Your task to perform on an android device: When is my next appointment? Image 0: 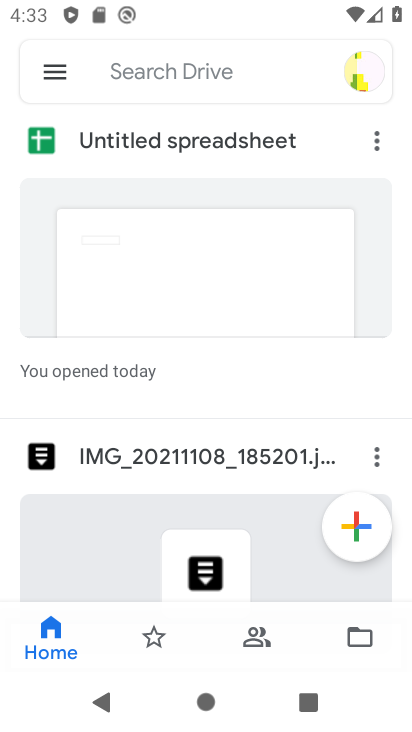
Step 0: press back button
Your task to perform on an android device: When is my next appointment? Image 1: 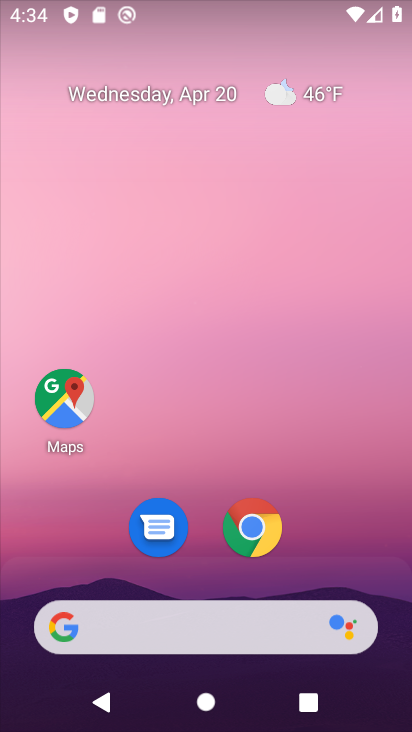
Step 1: drag from (202, 602) to (248, 179)
Your task to perform on an android device: When is my next appointment? Image 2: 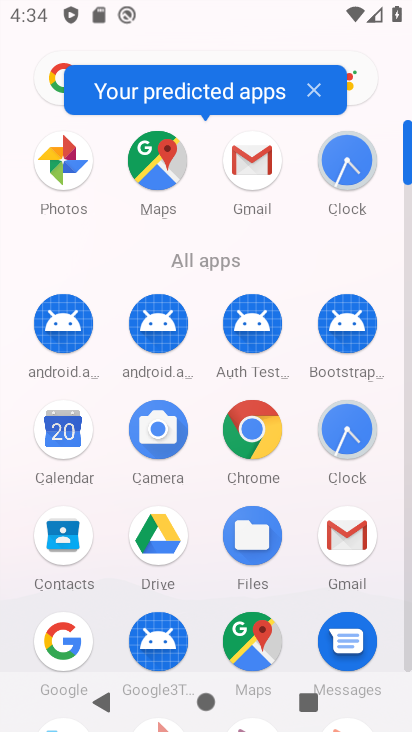
Step 2: click (62, 437)
Your task to perform on an android device: When is my next appointment? Image 3: 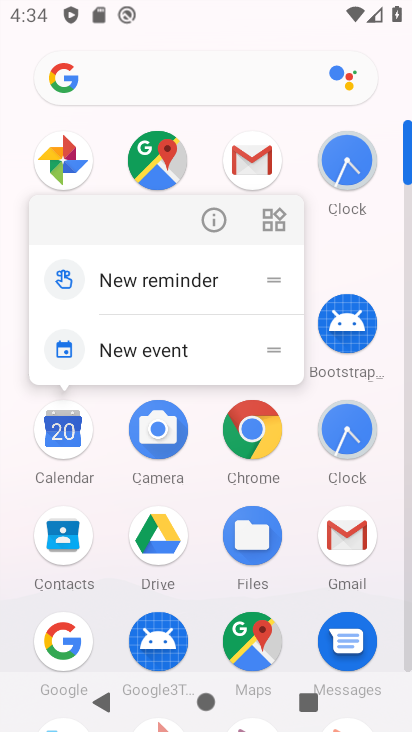
Step 3: click (202, 222)
Your task to perform on an android device: When is my next appointment? Image 4: 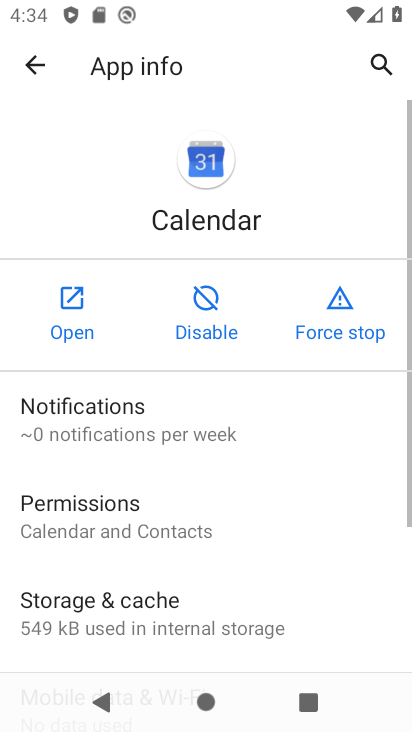
Step 4: click (67, 306)
Your task to perform on an android device: When is my next appointment? Image 5: 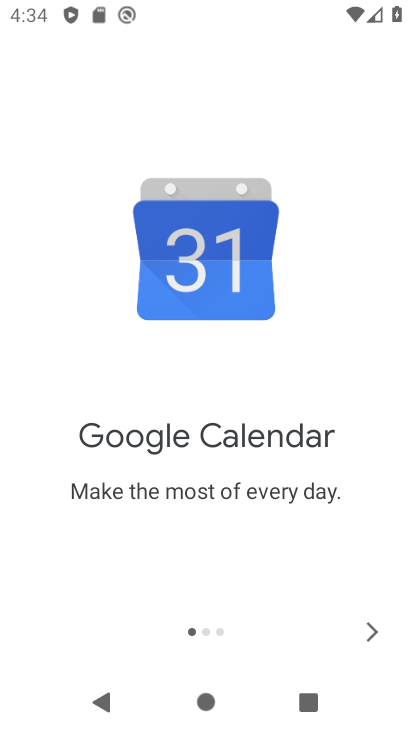
Step 5: click (359, 627)
Your task to perform on an android device: When is my next appointment? Image 6: 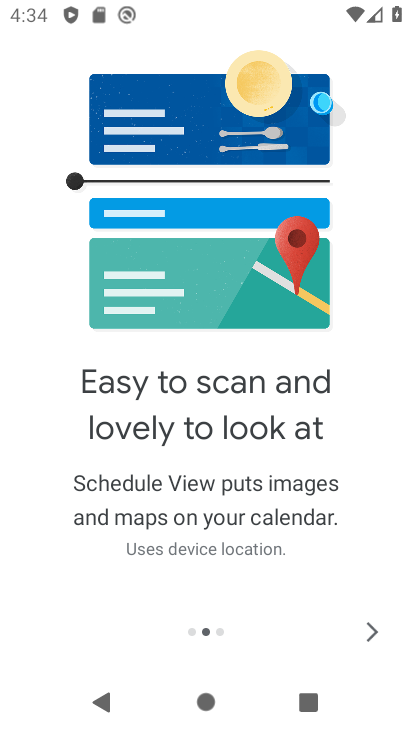
Step 6: click (363, 627)
Your task to perform on an android device: When is my next appointment? Image 7: 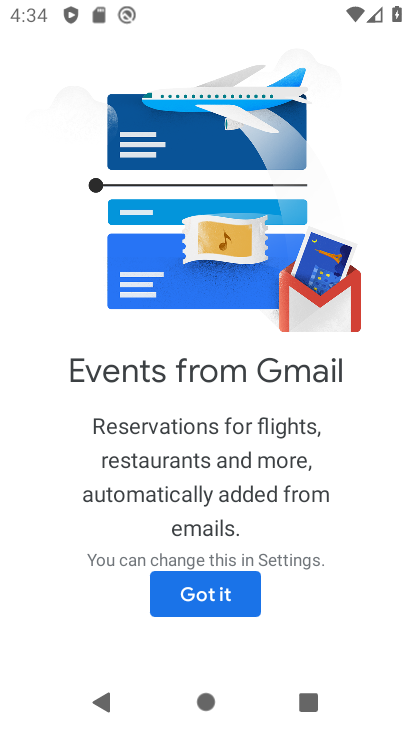
Step 7: click (246, 587)
Your task to perform on an android device: When is my next appointment? Image 8: 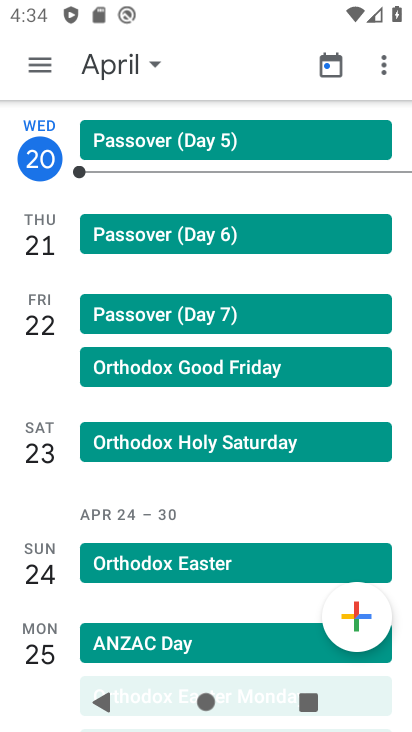
Step 8: click (123, 67)
Your task to perform on an android device: When is my next appointment? Image 9: 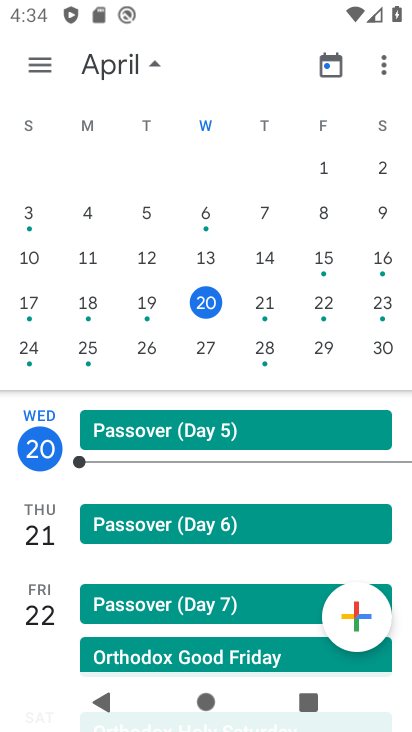
Step 9: click (255, 305)
Your task to perform on an android device: When is my next appointment? Image 10: 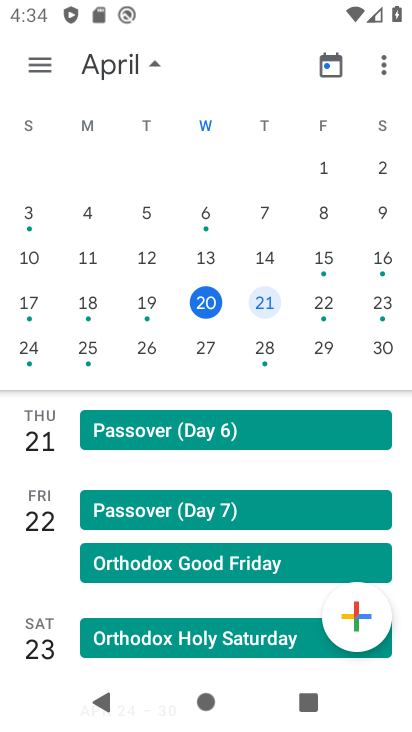
Step 10: click (320, 308)
Your task to perform on an android device: When is my next appointment? Image 11: 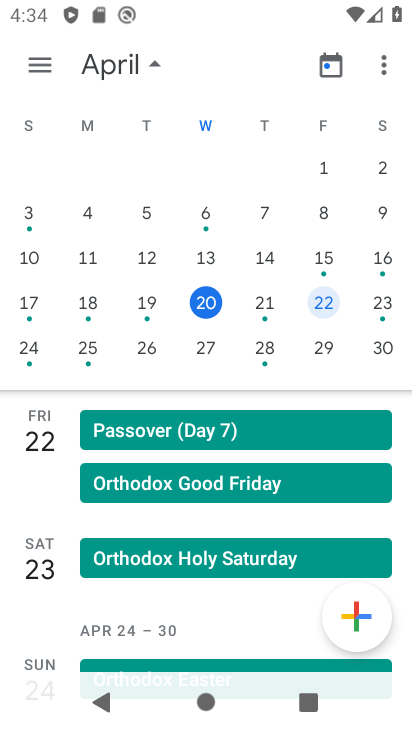
Step 11: click (375, 309)
Your task to perform on an android device: When is my next appointment? Image 12: 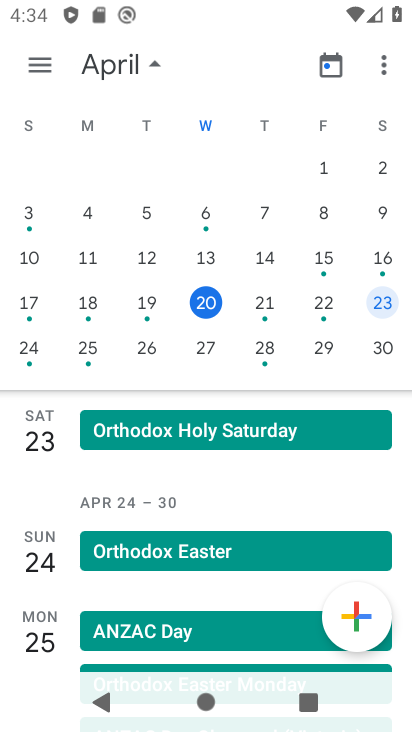
Step 12: click (39, 341)
Your task to perform on an android device: When is my next appointment? Image 13: 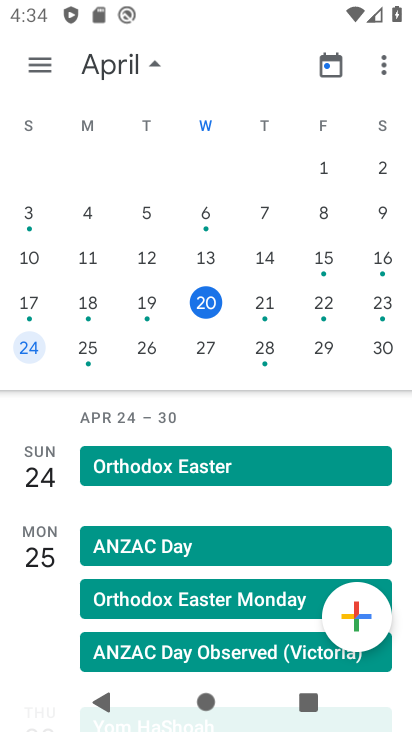
Step 13: click (85, 336)
Your task to perform on an android device: When is my next appointment? Image 14: 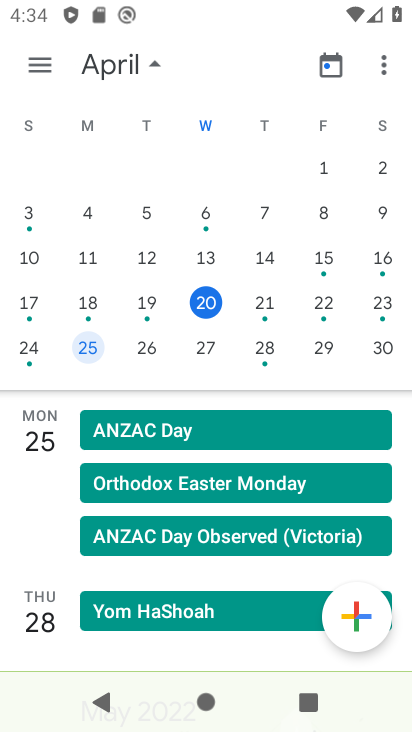
Step 14: click (135, 348)
Your task to perform on an android device: When is my next appointment? Image 15: 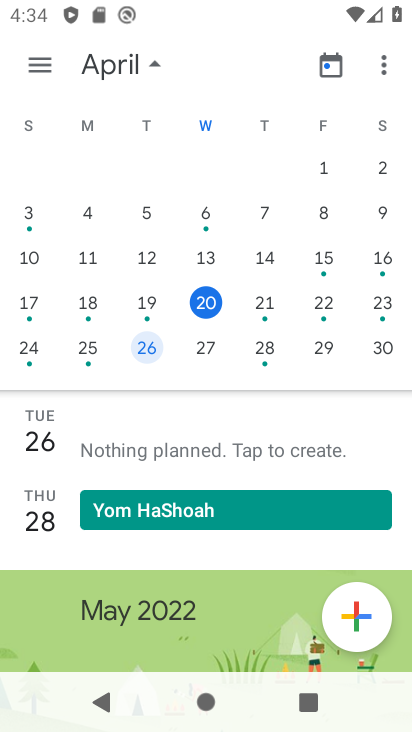
Step 15: click (195, 357)
Your task to perform on an android device: When is my next appointment? Image 16: 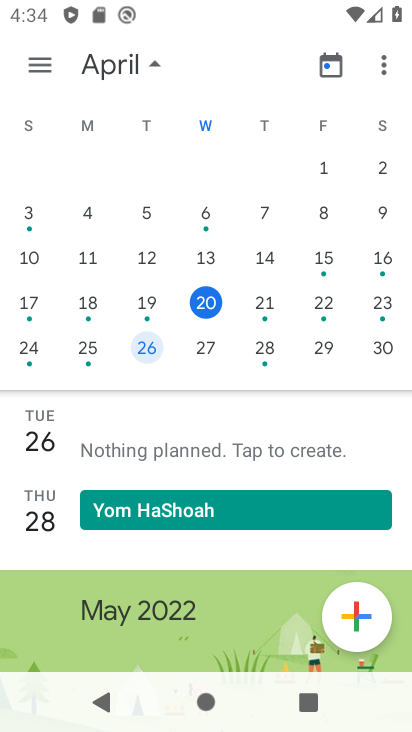
Step 16: click (257, 350)
Your task to perform on an android device: When is my next appointment? Image 17: 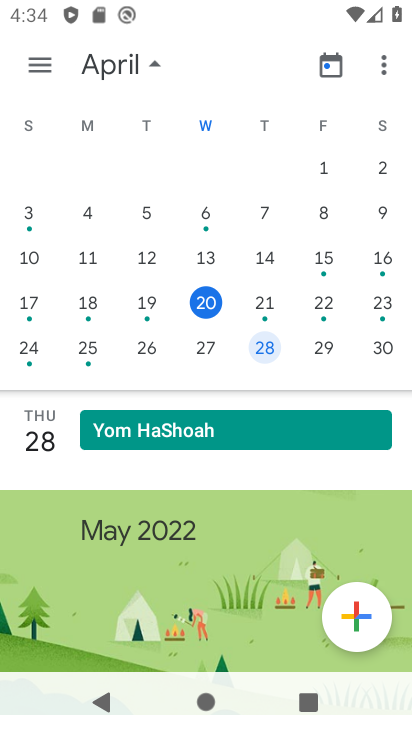
Step 17: click (320, 351)
Your task to perform on an android device: When is my next appointment? Image 18: 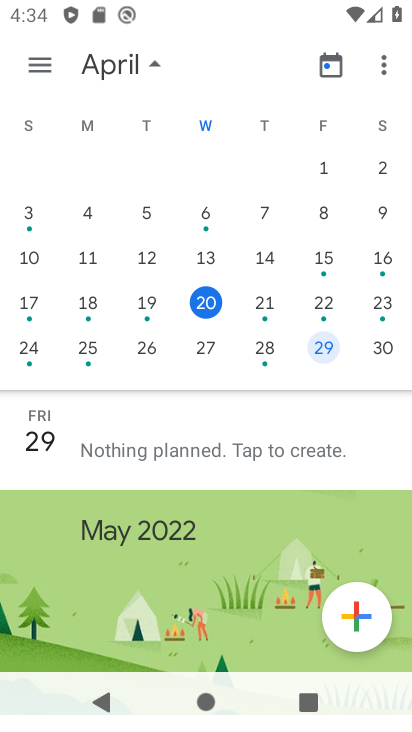
Step 18: click (389, 348)
Your task to perform on an android device: When is my next appointment? Image 19: 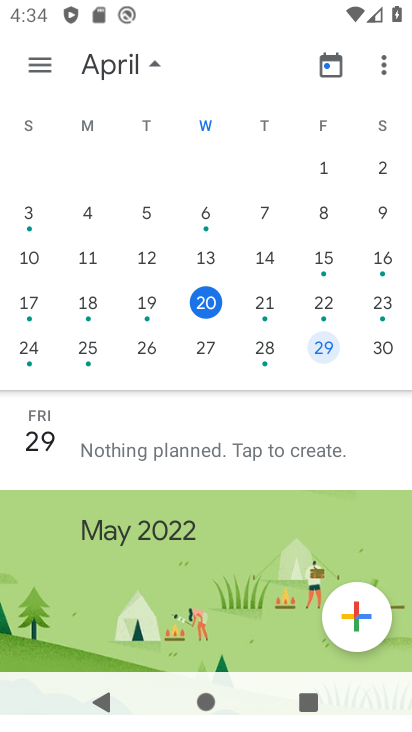
Step 19: drag from (388, 244) to (48, 208)
Your task to perform on an android device: When is my next appointment? Image 20: 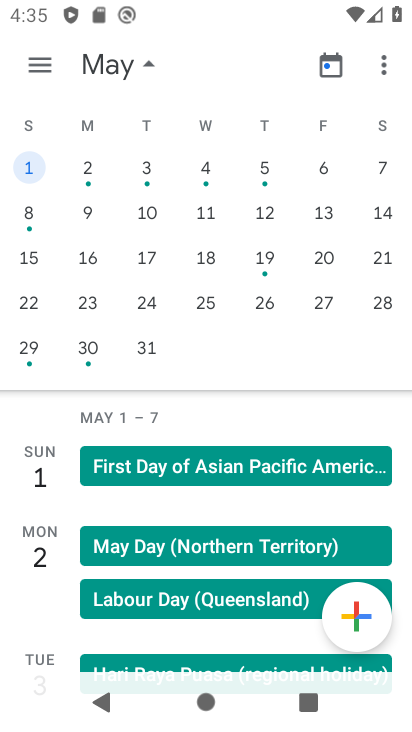
Step 20: click (77, 166)
Your task to perform on an android device: When is my next appointment? Image 21: 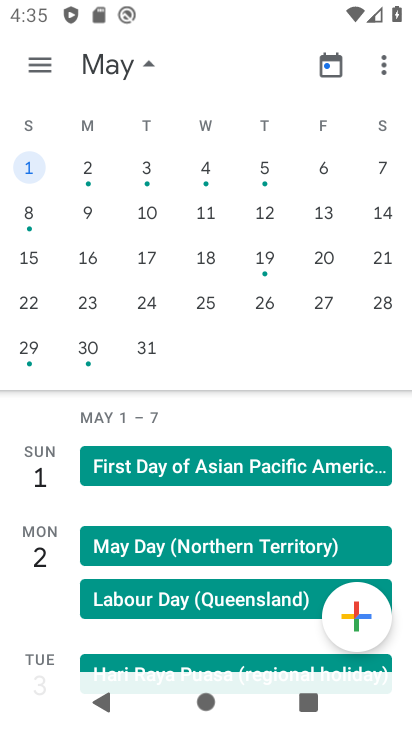
Step 21: click (85, 180)
Your task to perform on an android device: When is my next appointment? Image 22: 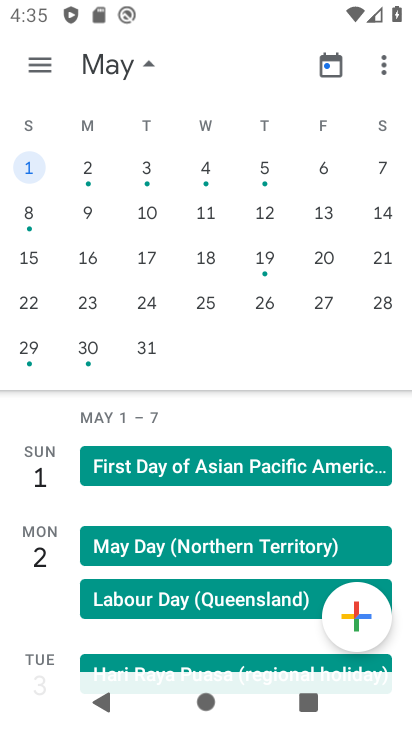
Step 22: click (82, 164)
Your task to perform on an android device: When is my next appointment? Image 23: 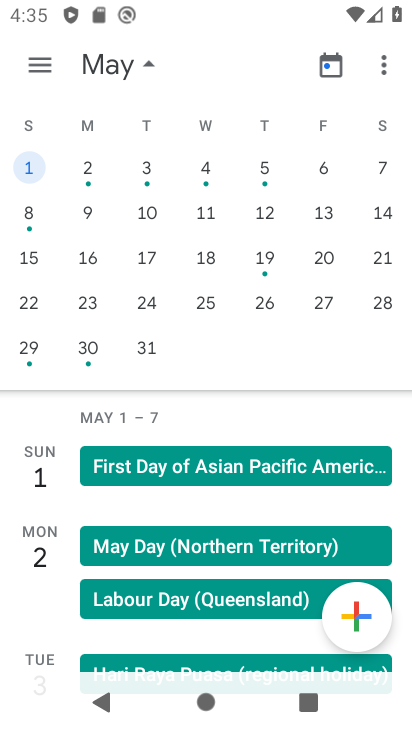
Step 23: click (90, 173)
Your task to perform on an android device: When is my next appointment? Image 24: 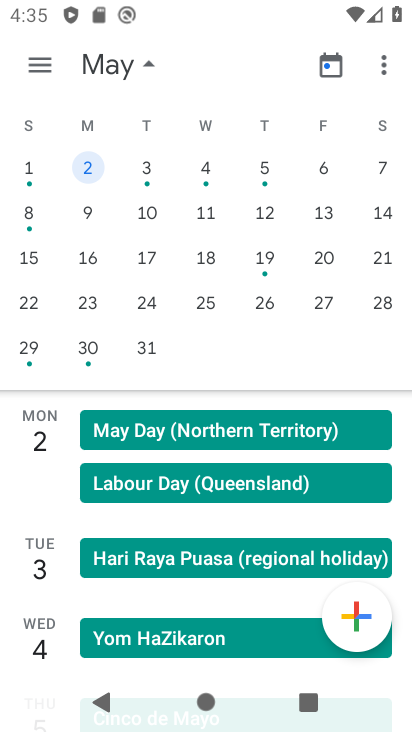
Step 24: click (137, 172)
Your task to perform on an android device: When is my next appointment? Image 25: 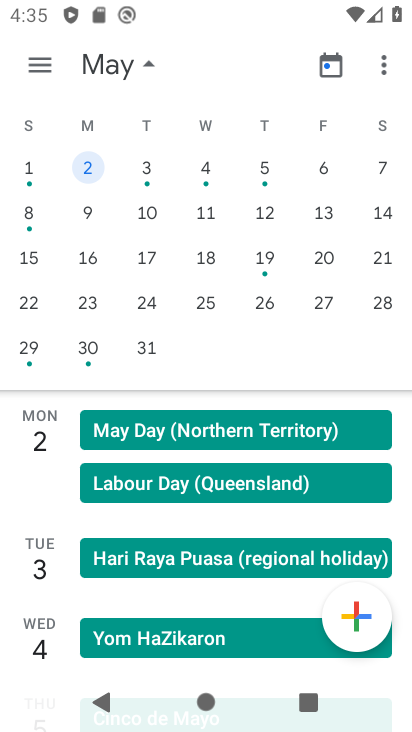
Step 25: task complete